Your task to perform on an android device: all mails in gmail Image 0: 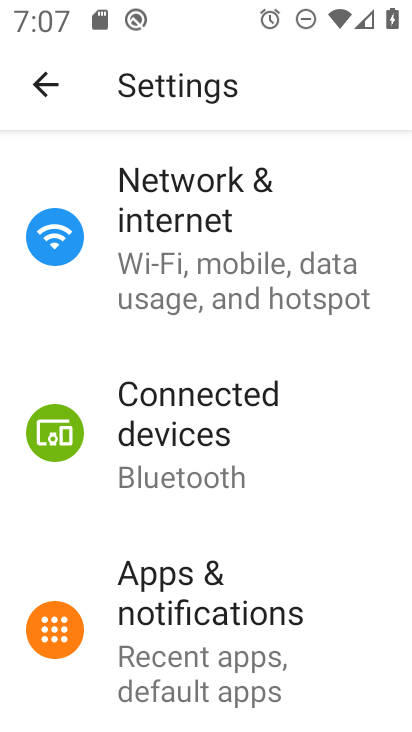
Step 0: press home button
Your task to perform on an android device: all mails in gmail Image 1: 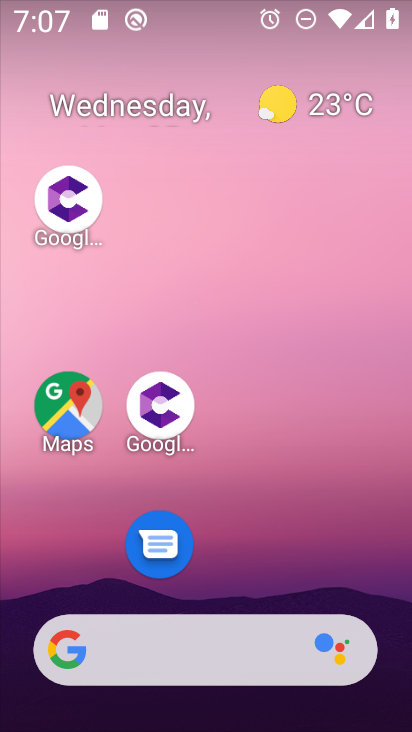
Step 1: drag from (242, 514) to (199, 29)
Your task to perform on an android device: all mails in gmail Image 2: 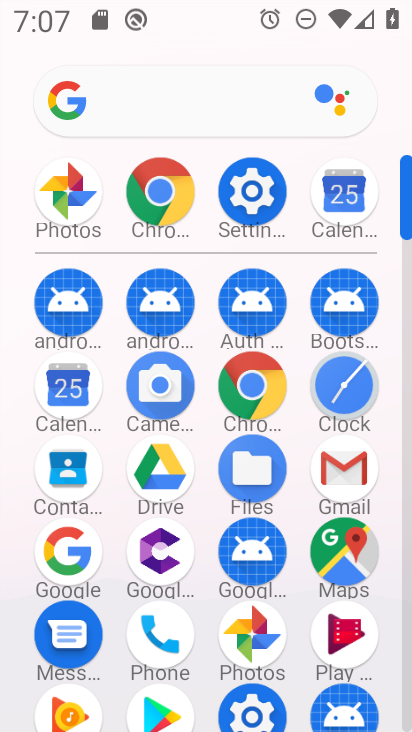
Step 2: click (348, 468)
Your task to perform on an android device: all mails in gmail Image 3: 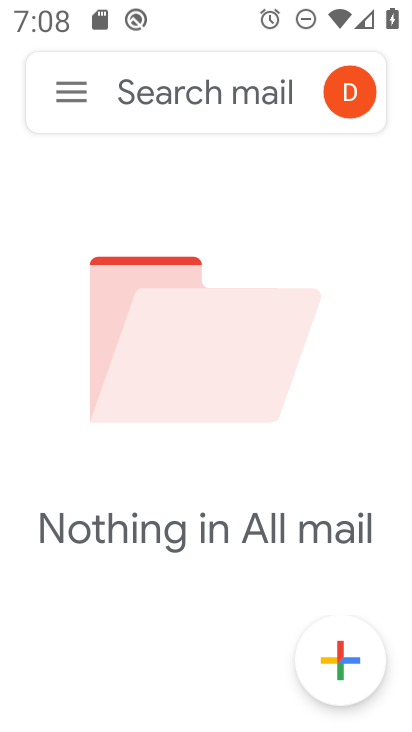
Step 3: task complete